Your task to perform on an android device: Open the map Image 0: 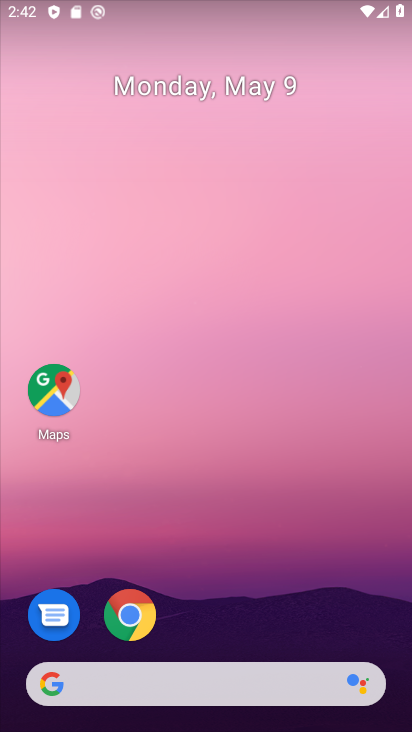
Step 0: drag from (245, 625) to (198, 305)
Your task to perform on an android device: Open the map Image 1: 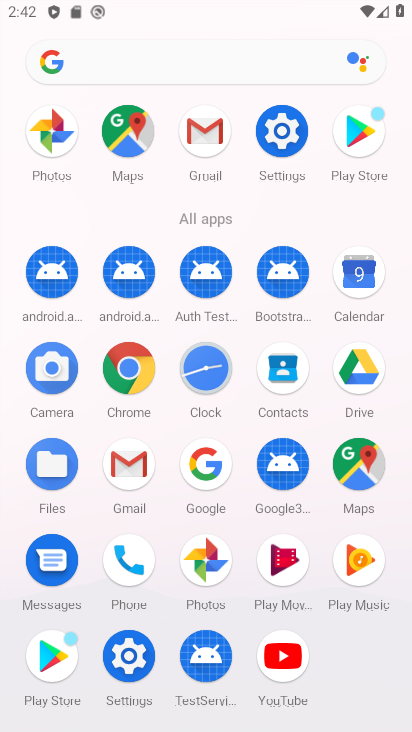
Step 1: click (125, 366)
Your task to perform on an android device: Open the map Image 2: 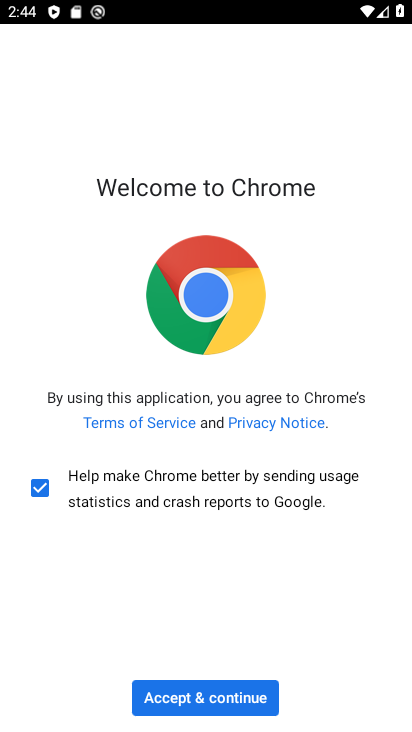
Step 2: click (199, 698)
Your task to perform on an android device: Open the map Image 3: 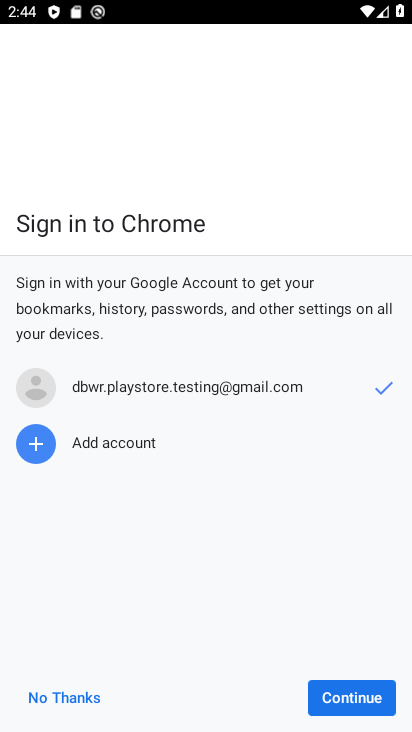
Step 3: click (351, 689)
Your task to perform on an android device: Open the map Image 4: 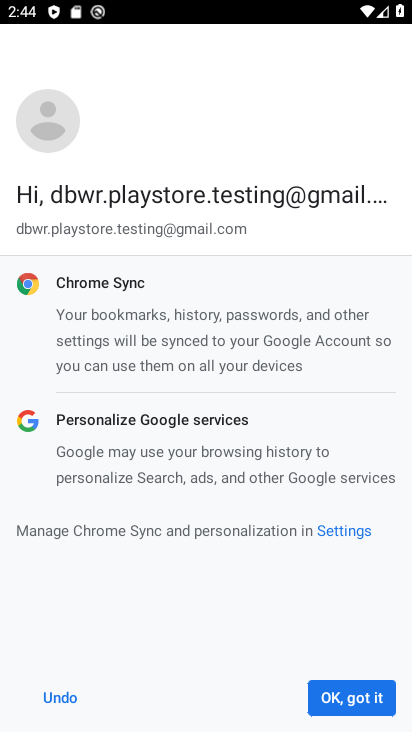
Step 4: click (351, 689)
Your task to perform on an android device: Open the map Image 5: 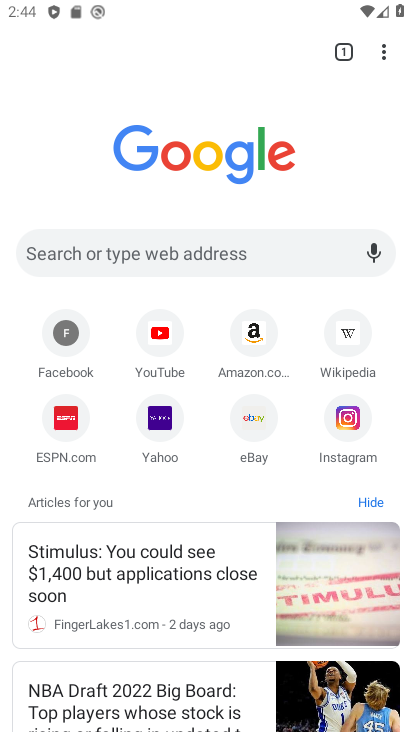
Step 5: press home button
Your task to perform on an android device: Open the map Image 6: 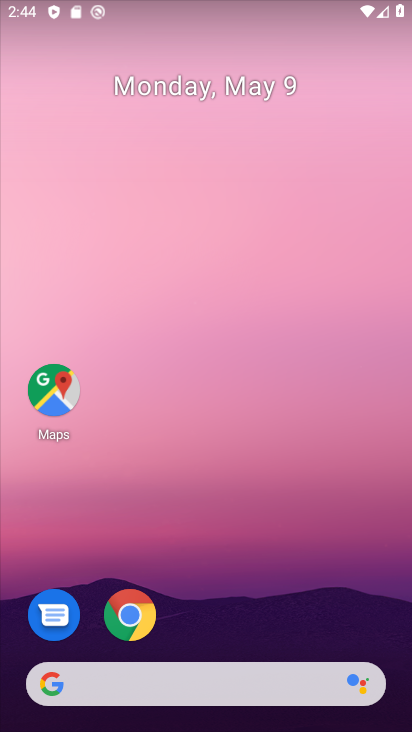
Step 6: drag from (242, 623) to (252, 230)
Your task to perform on an android device: Open the map Image 7: 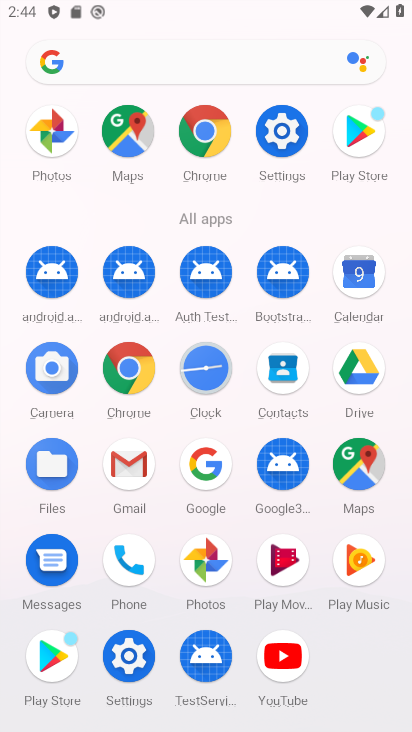
Step 7: click (360, 469)
Your task to perform on an android device: Open the map Image 8: 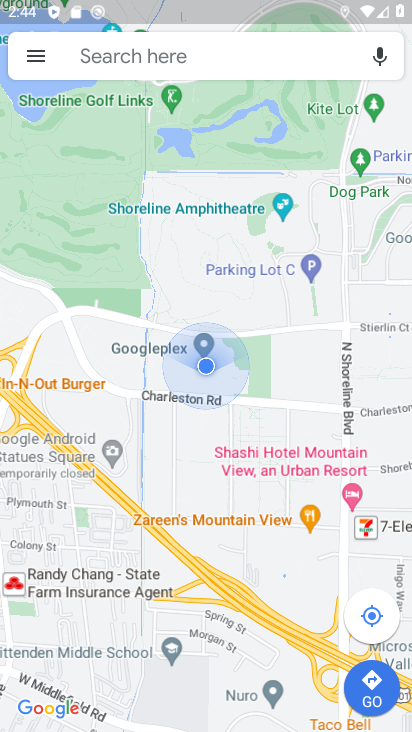
Step 8: task complete